Your task to perform on an android device: change your default location settings in chrome Image 0: 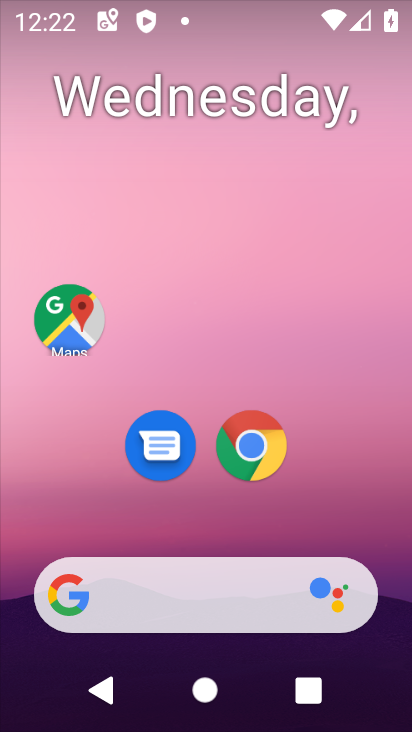
Step 0: click (257, 446)
Your task to perform on an android device: change your default location settings in chrome Image 1: 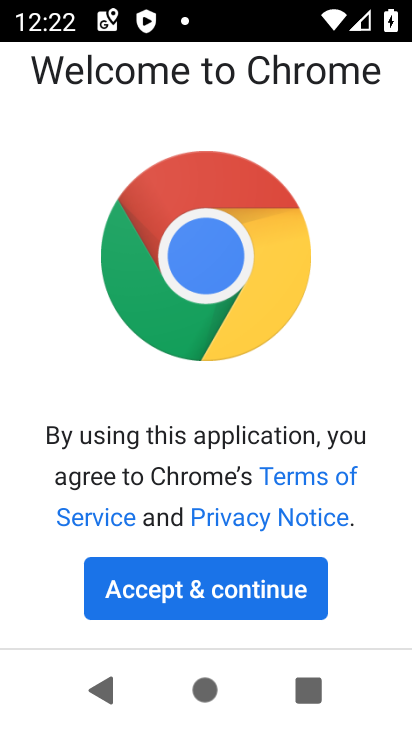
Step 1: click (257, 599)
Your task to perform on an android device: change your default location settings in chrome Image 2: 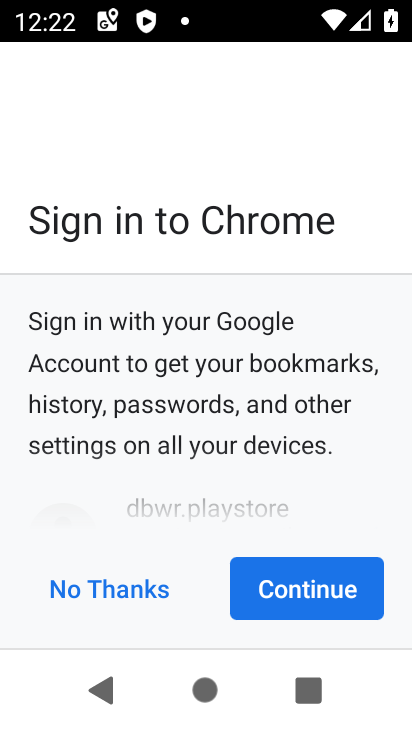
Step 2: click (258, 595)
Your task to perform on an android device: change your default location settings in chrome Image 3: 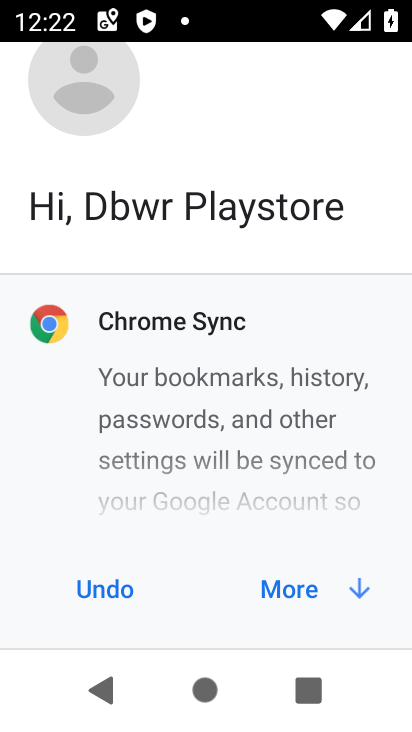
Step 3: click (268, 581)
Your task to perform on an android device: change your default location settings in chrome Image 4: 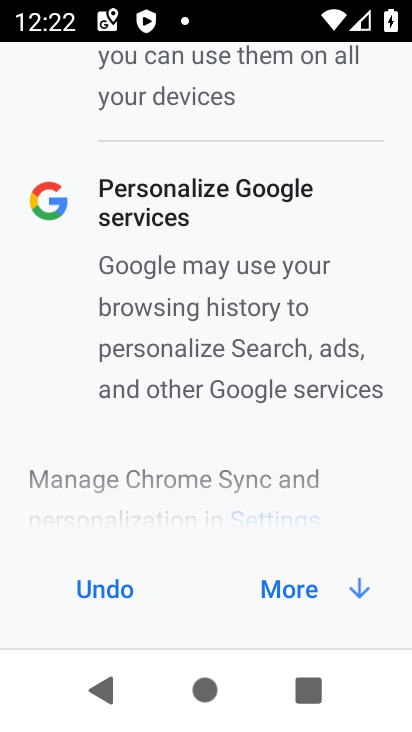
Step 4: click (269, 580)
Your task to perform on an android device: change your default location settings in chrome Image 5: 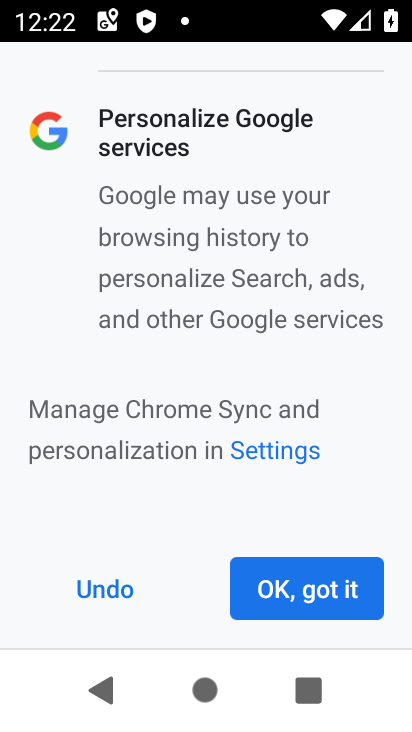
Step 5: click (269, 580)
Your task to perform on an android device: change your default location settings in chrome Image 6: 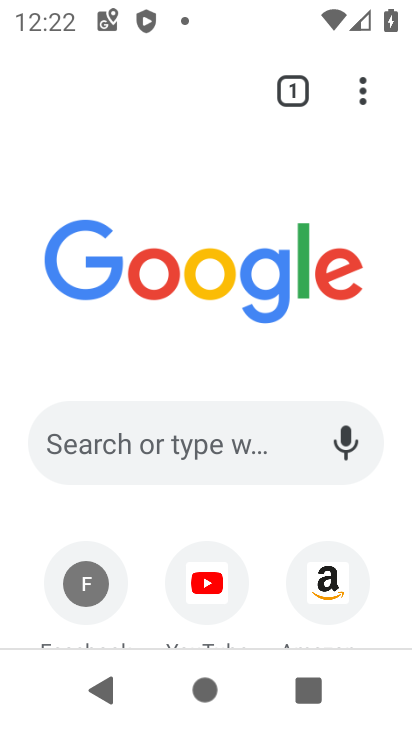
Step 6: drag from (358, 86) to (159, 471)
Your task to perform on an android device: change your default location settings in chrome Image 7: 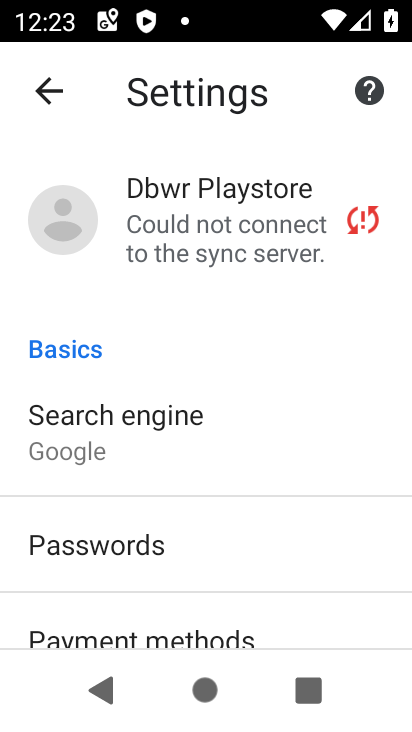
Step 7: click (140, 451)
Your task to perform on an android device: change your default location settings in chrome Image 8: 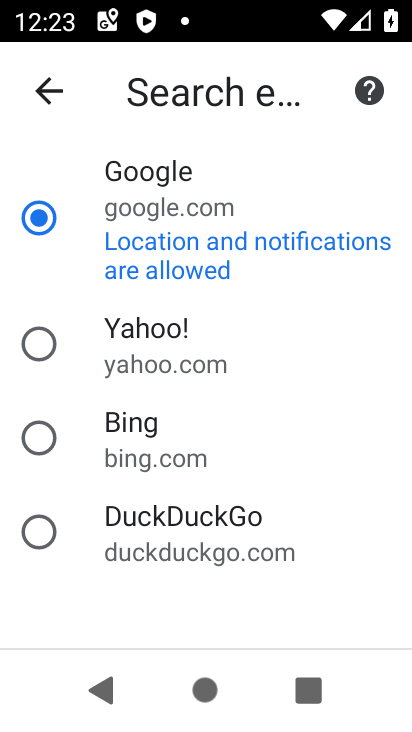
Step 8: task complete